Your task to perform on an android device: Open Google Chrome Image 0: 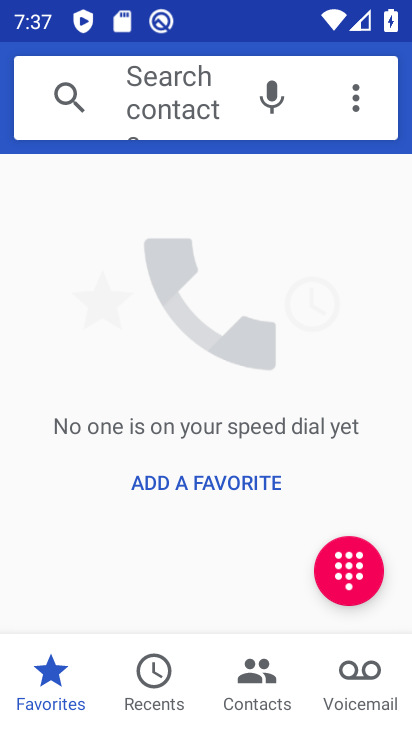
Step 0: press home button
Your task to perform on an android device: Open Google Chrome Image 1: 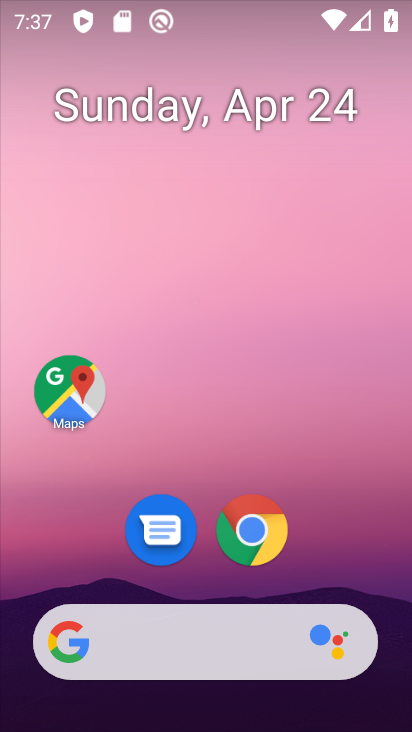
Step 1: click (261, 527)
Your task to perform on an android device: Open Google Chrome Image 2: 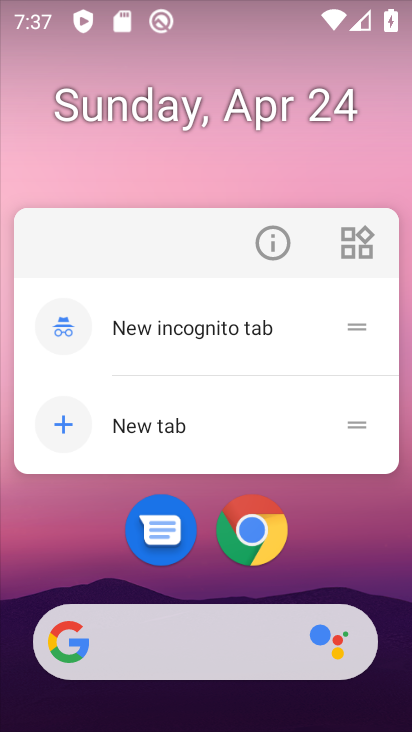
Step 2: click (211, 438)
Your task to perform on an android device: Open Google Chrome Image 3: 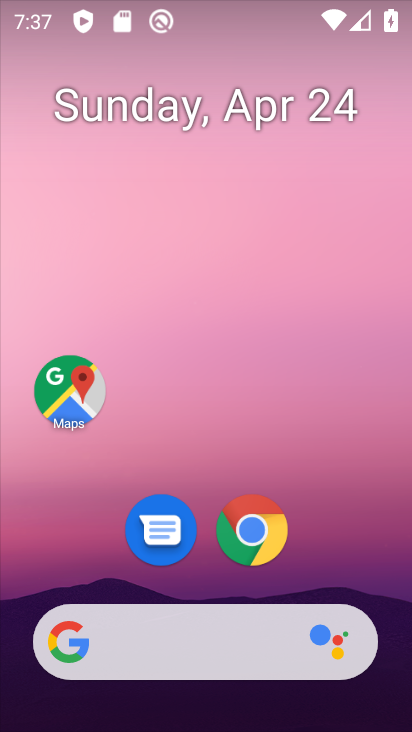
Step 3: click (254, 531)
Your task to perform on an android device: Open Google Chrome Image 4: 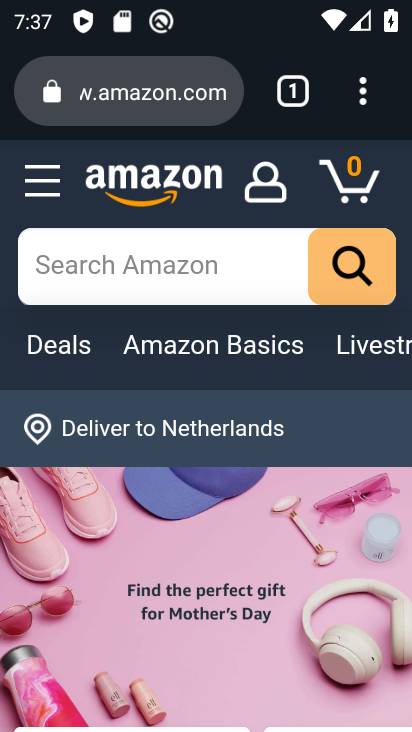
Step 4: task complete